Your task to perform on an android device: open app "Google Play Music" Image 0: 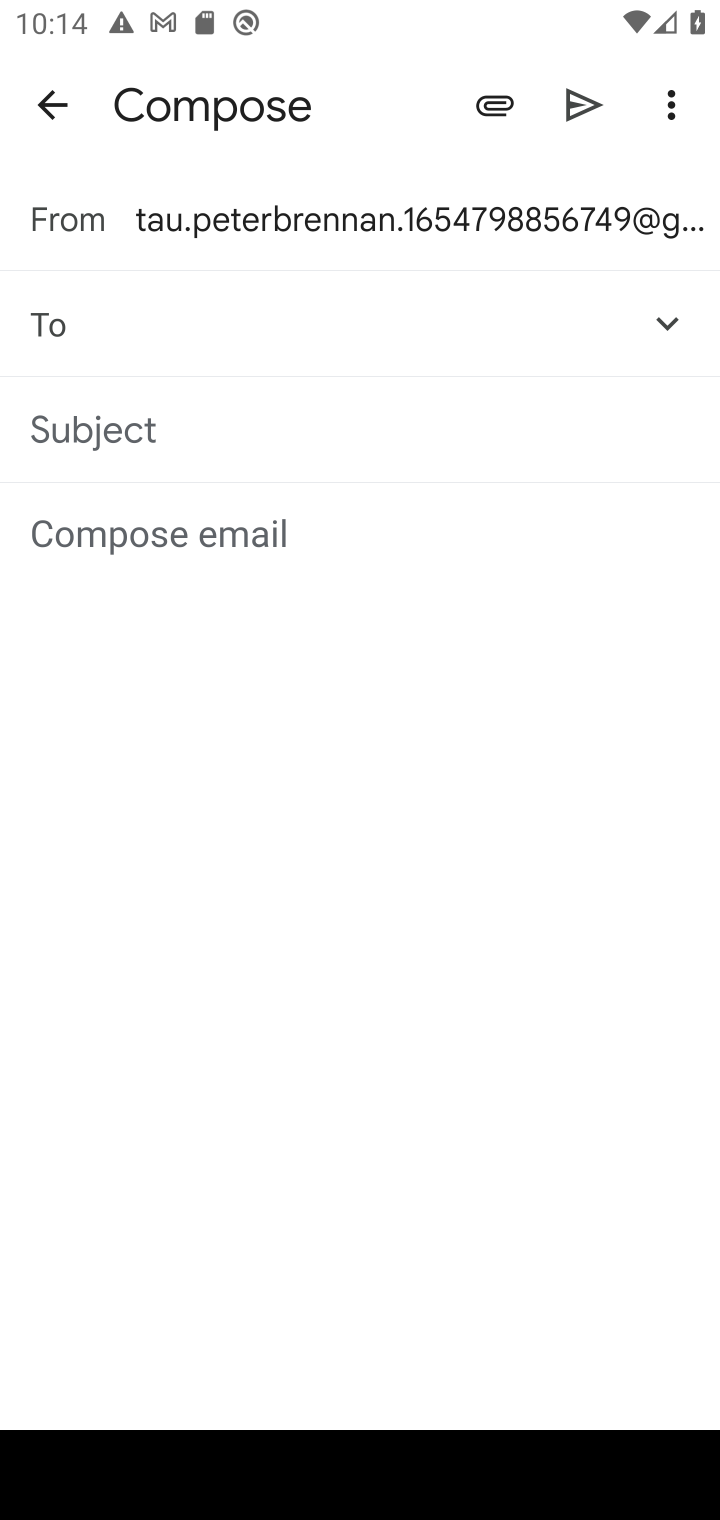
Step 0: press home button
Your task to perform on an android device: open app "Google Play Music" Image 1: 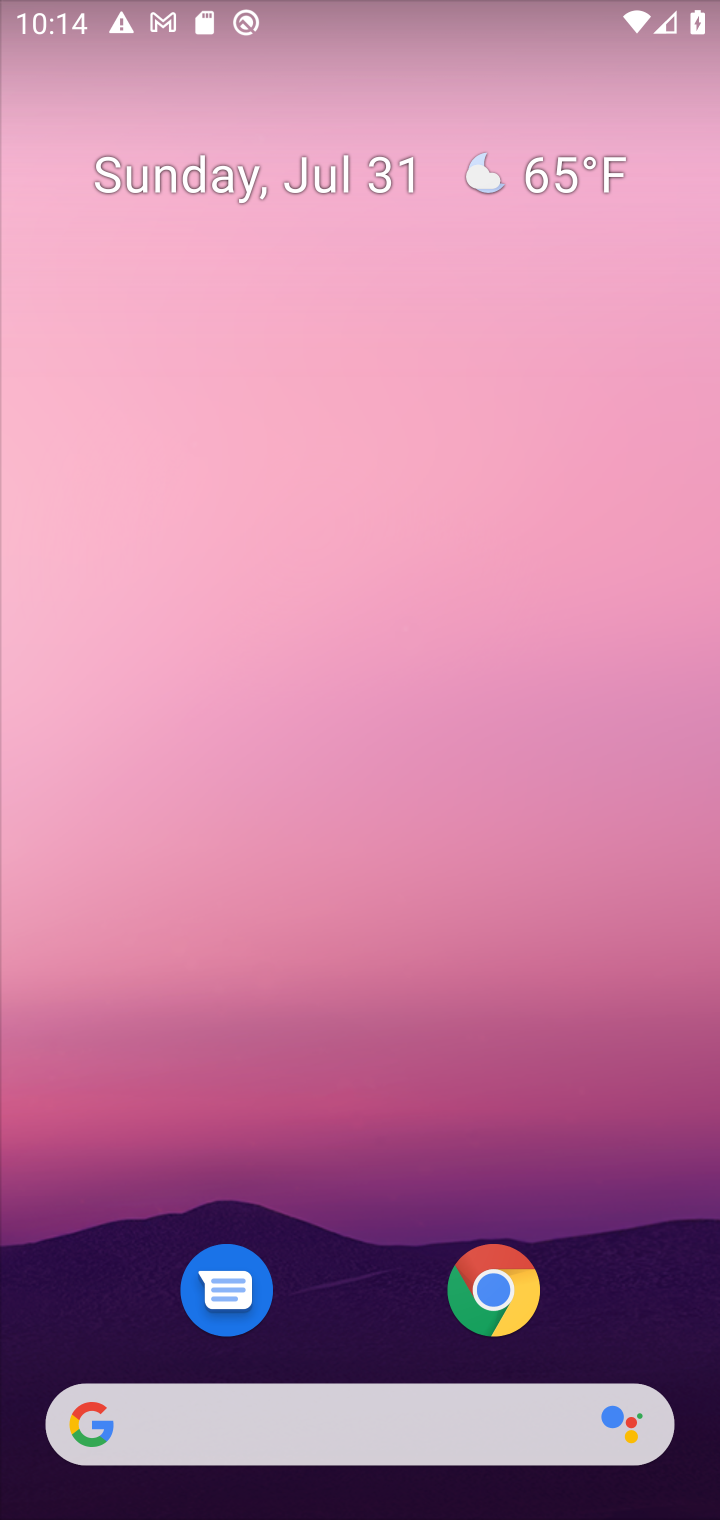
Step 1: drag from (625, 1169) to (609, 120)
Your task to perform on an android device: open app "Google Play Music" Image 2: 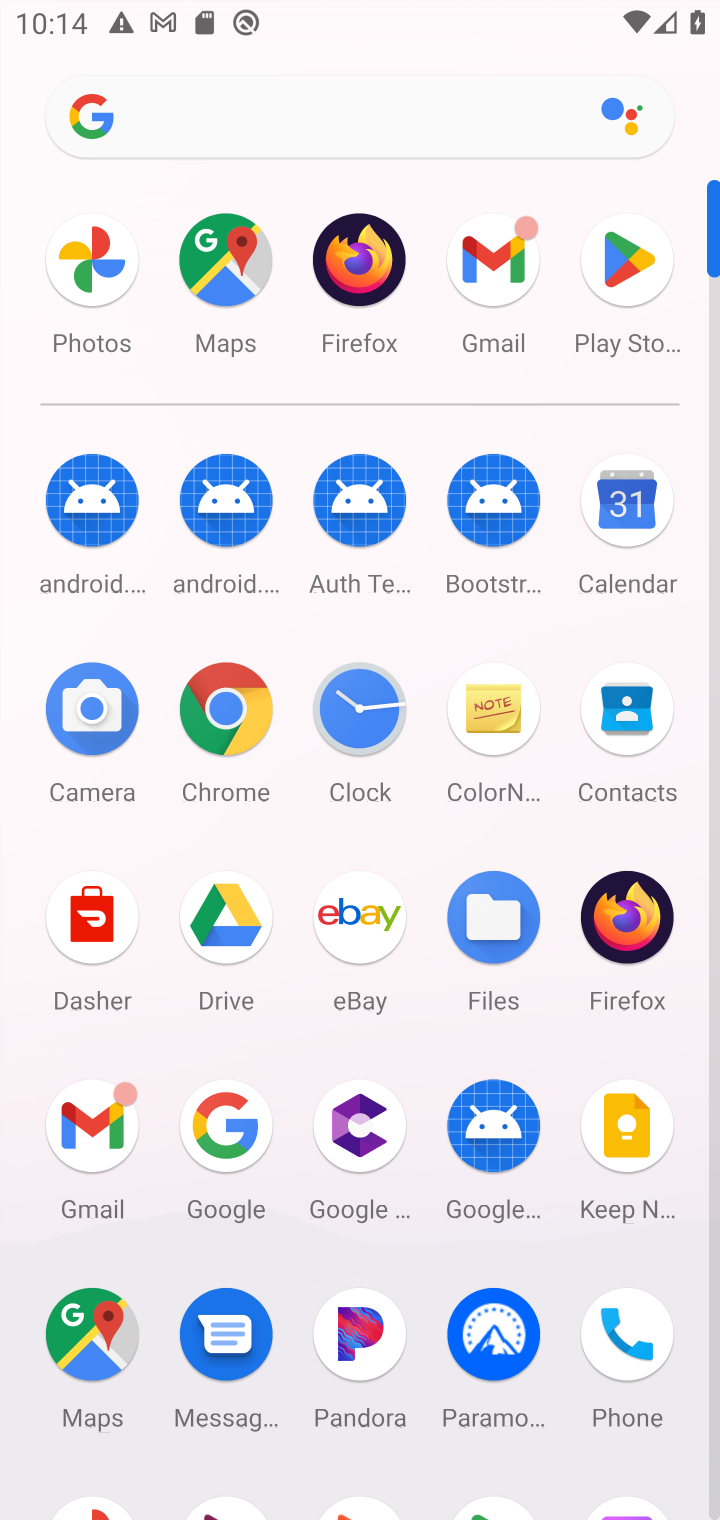
Step 2: click (619, 277)
Your task to perform on an android device: open app "Google Play Music" Image 3: 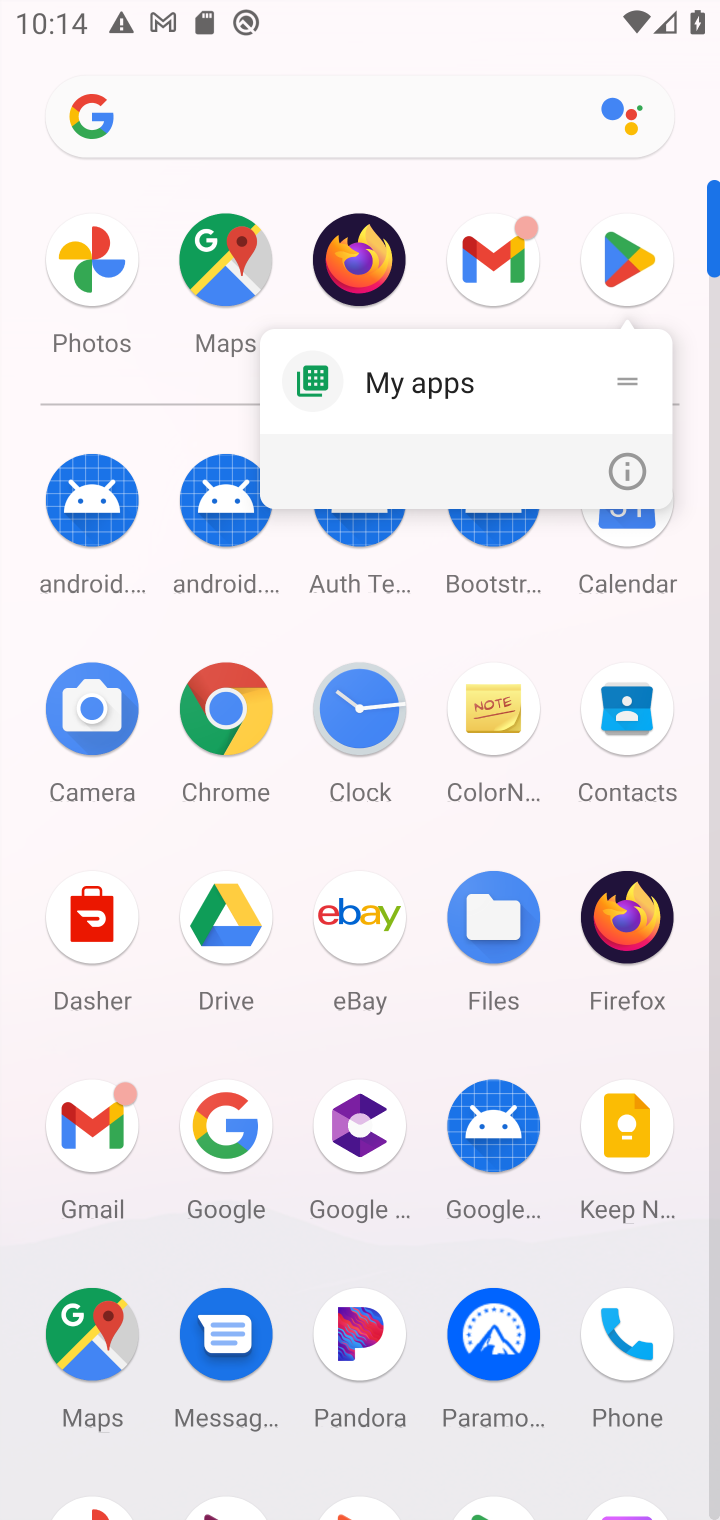
Step 3: click (619, 277)
Your task to perform on an android device: open app "Google Play Music" Image 4: 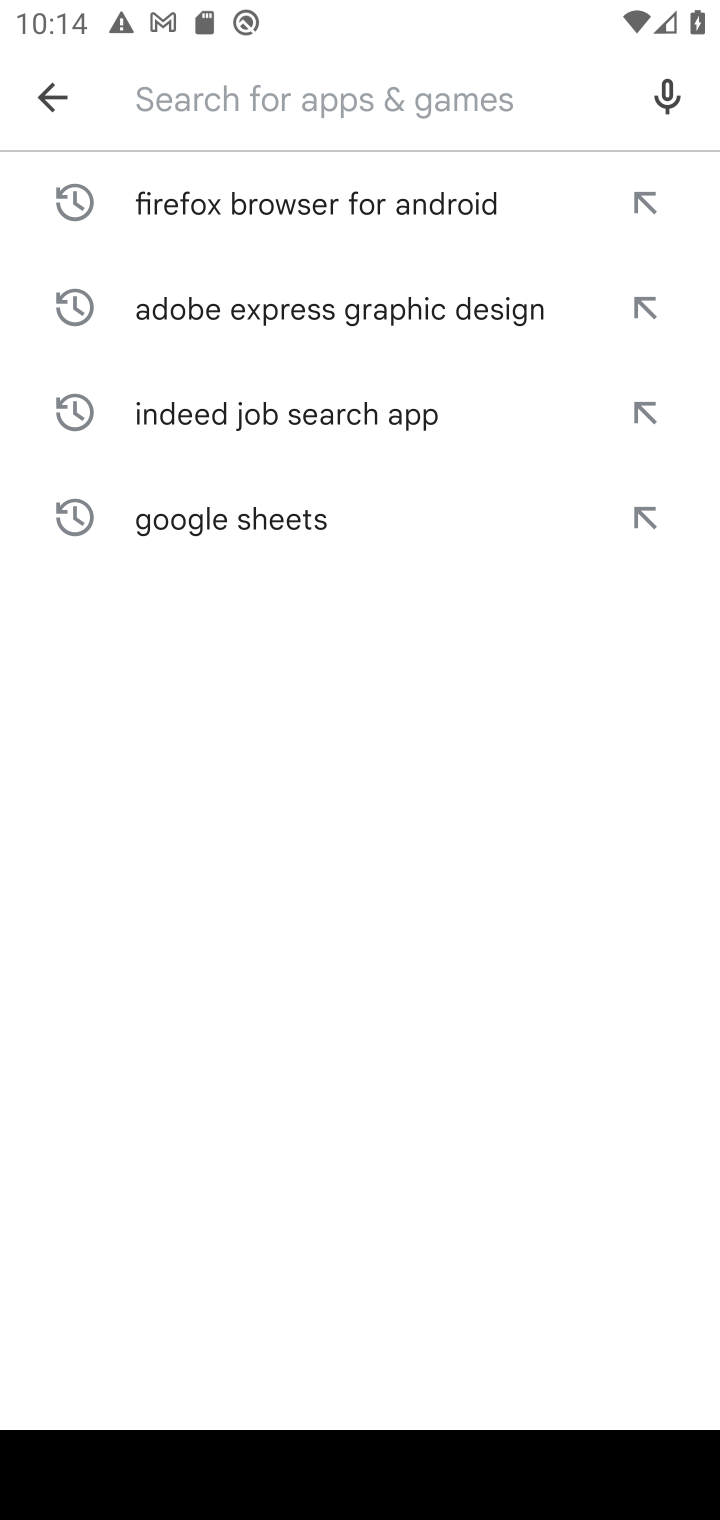
Step 4: click (344, 89)
Your task to perform on an android device: open app "Google Play Music" Image 5: 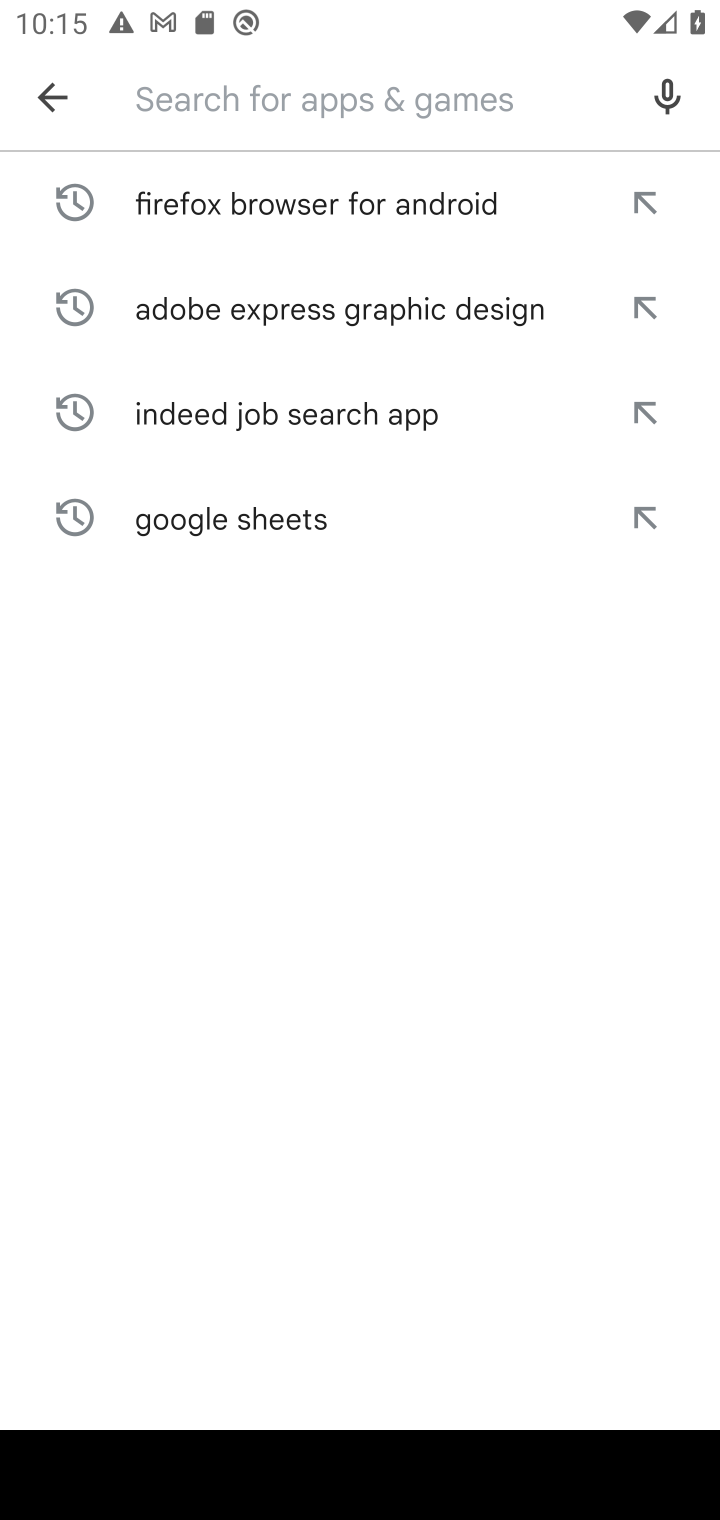
Step 5: type "google play music"
Your task to perform on an android device: open app "Google Play Music" Image 6: 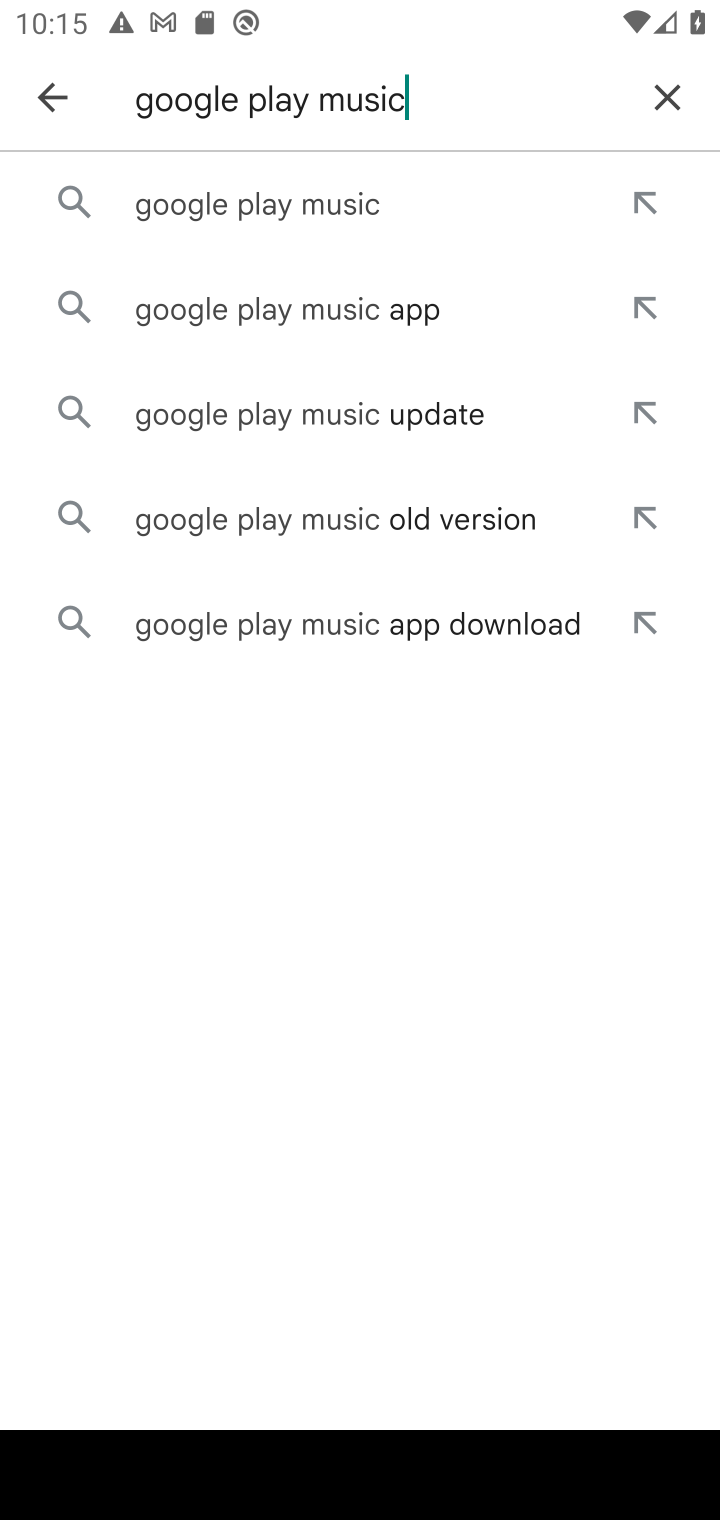
Step 6: click (373, 193)
Your task to perform on an android device: open app "Google Play Music" Image 7: 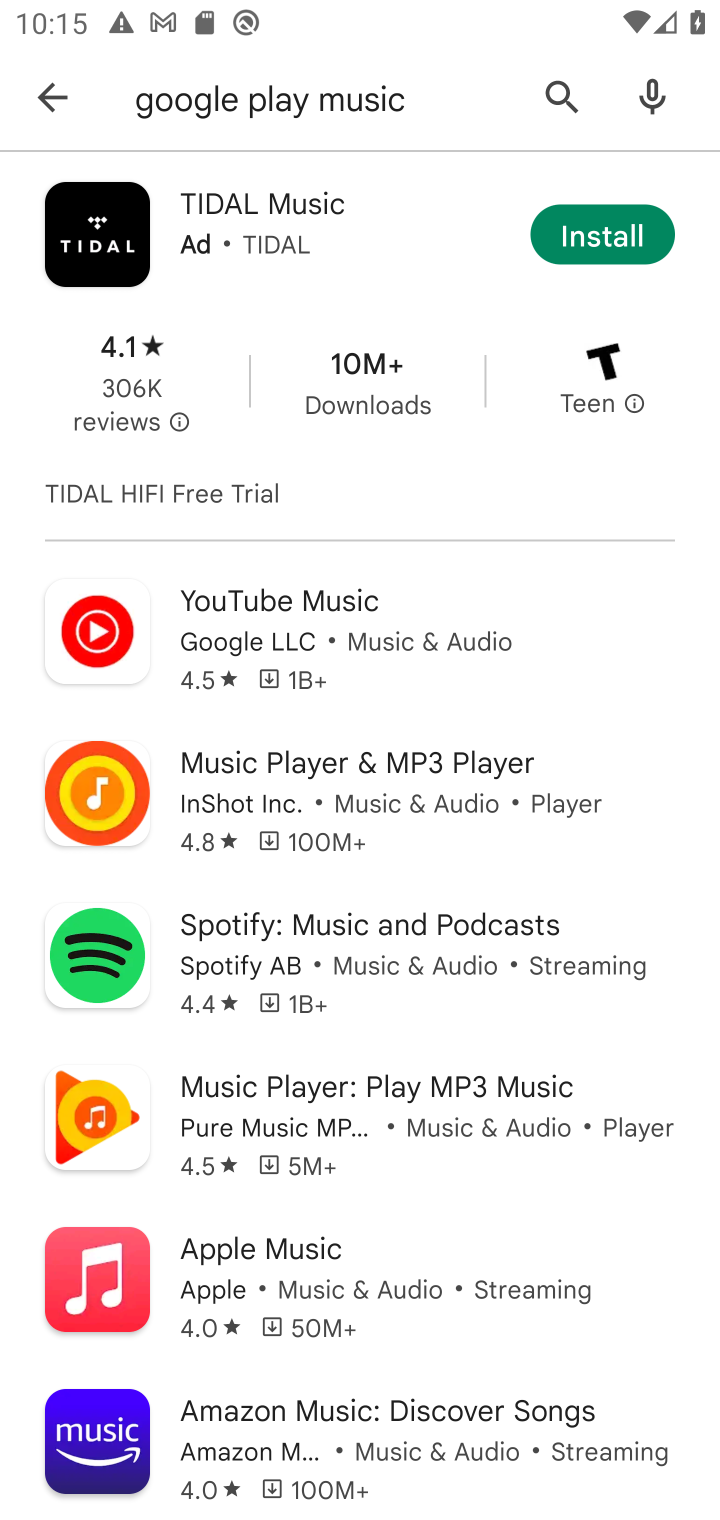
Step 7: task complete